Your task to perform on an android device: allow notifications from all sites in the chrome app Image 0: 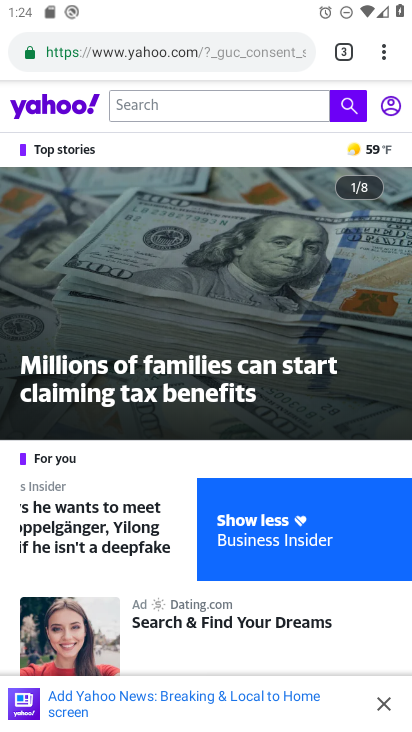
Step 0: press home button
Your task to perform on an android device: allow notifications from all sites in the chrome app Image 1: 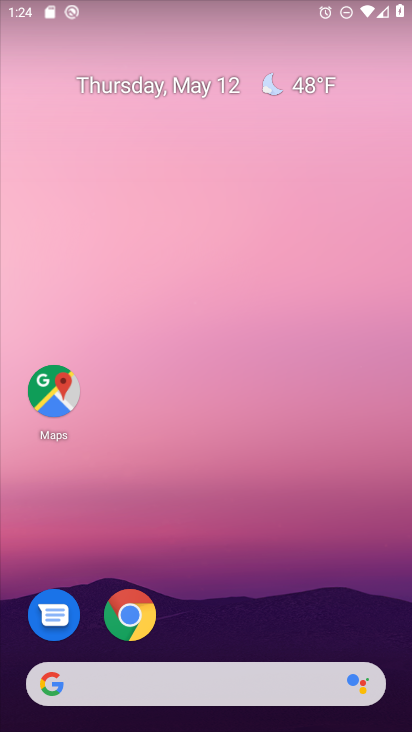
Step 1: drag from (215, 644) to (382, 389)
Your task to perform on an android device: allow notifications from all sites in the chrome app Image 2: 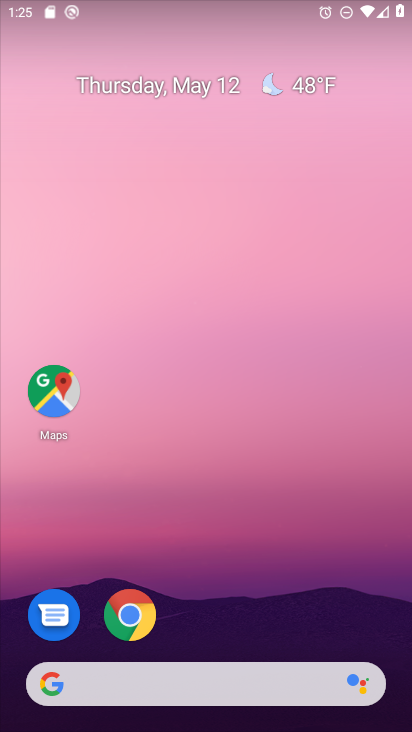
Step 2: drag from (289, 647) to (362, 64)
Your task to perform on an android device: allow notifications from all sites in the chrome app Image 3: 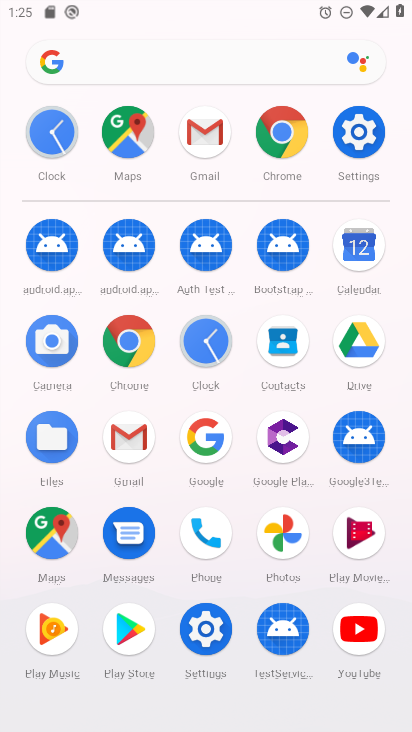
Step 3: click (137, 363)
Your task to perform on an android device: allow notifications from all sites in the chrome app Image 4: 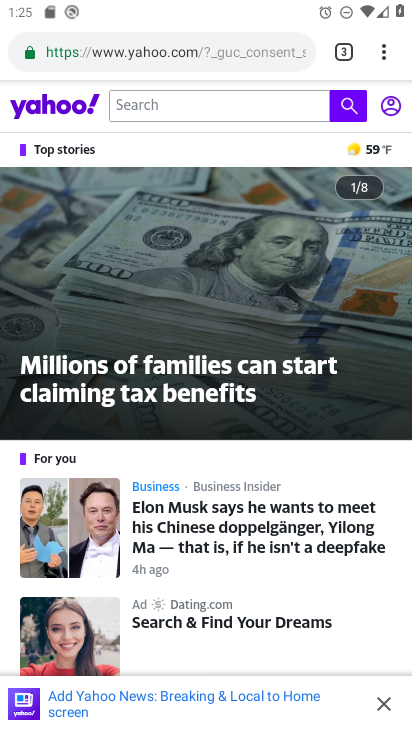
Step 4: click (384, 47)
Your task to perform on an android device: allow notifications from all sites in the chrome app Image 5: 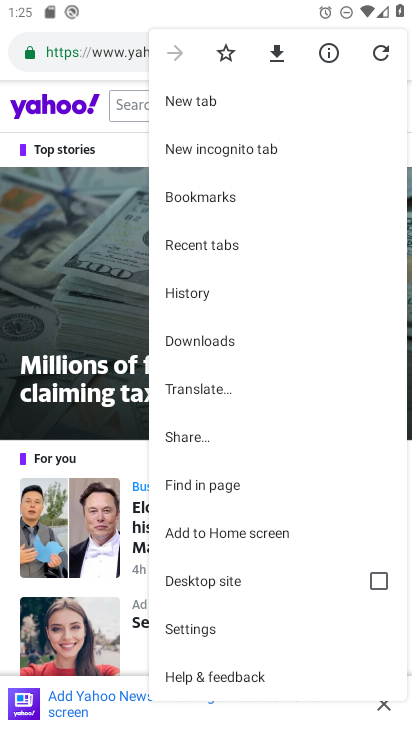
Step 5: drag from (206, 624) to (277, 384)
Your task to perform on an android device: allow notifications from all sites in the chrome app Image 6: 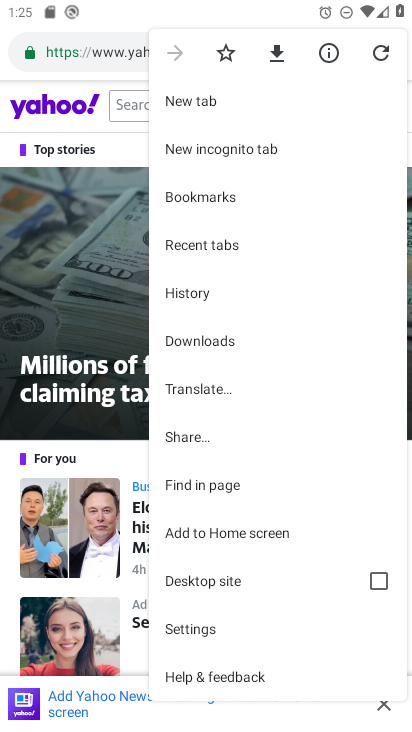
Step 6: click (216, 628)
Your task to perform on an android device: allow notifications from all sites in the chrome app Image 7: 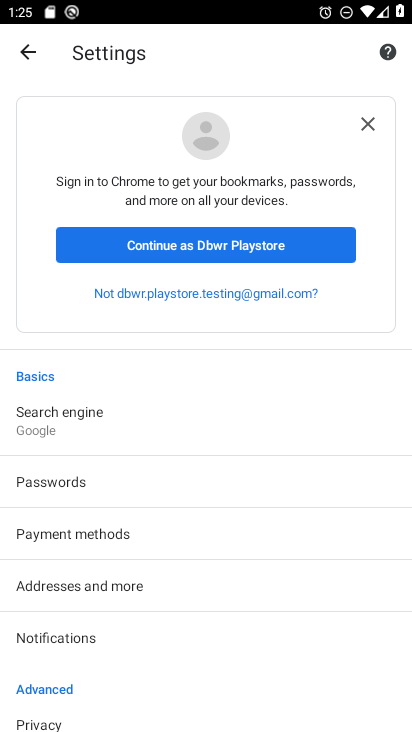
Step 7: drag from (86, 654) to (192, 73)
Your task to perform on an android device: allow notifications from all sites in the chrome app Image 8: 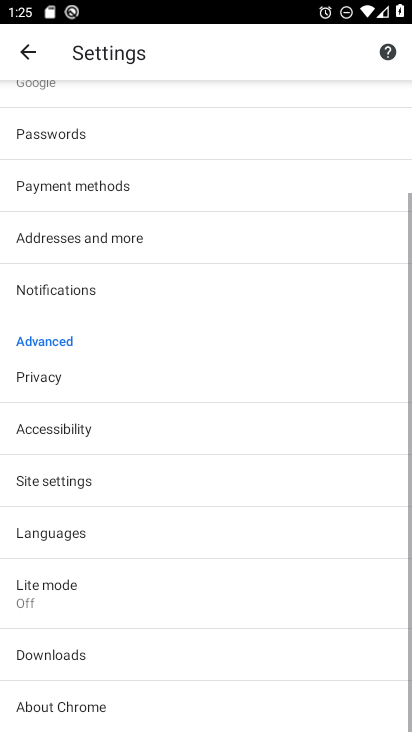
Step 8: click (61, 491)
Your task to perform on an android device: allow notifications from all sites in the chrome app Image 9: 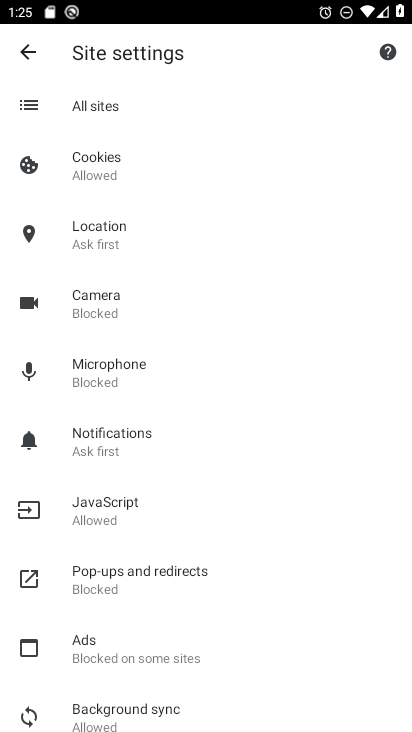
Step 9: click (157, 445)
Your task to perform on an android device: allow notifications from all sites in the chrome app Image 10: 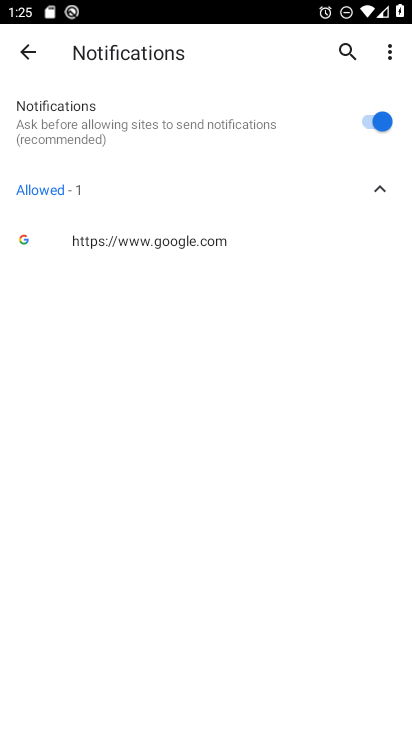
Step 10: task complete